Your task to perform on an android device: turn pop-ups on in chrome Image 0: 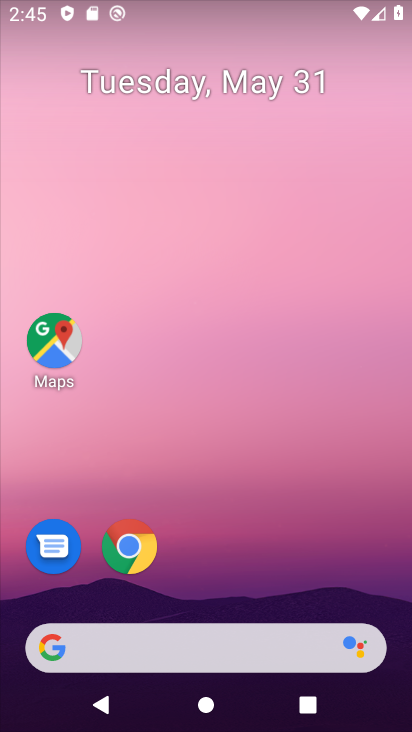
Step 0: click (136, 544)
Your task to perform on an android device: turn pop-ups on in chrome Image 1: 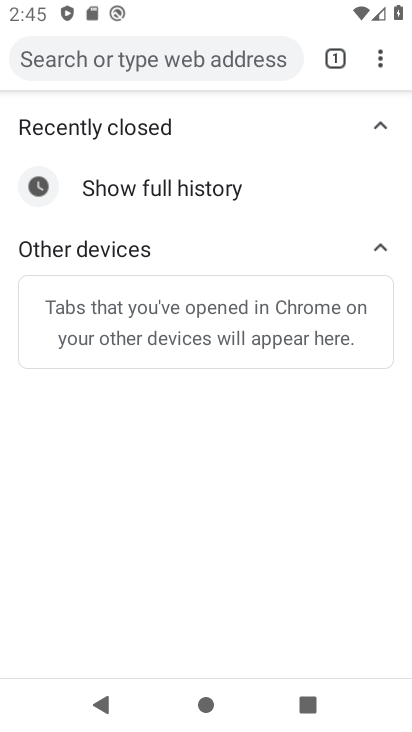
Step 1: click (381, 53)
Your task to perform on an android device: turn pop-ups on in chrome Image 2: 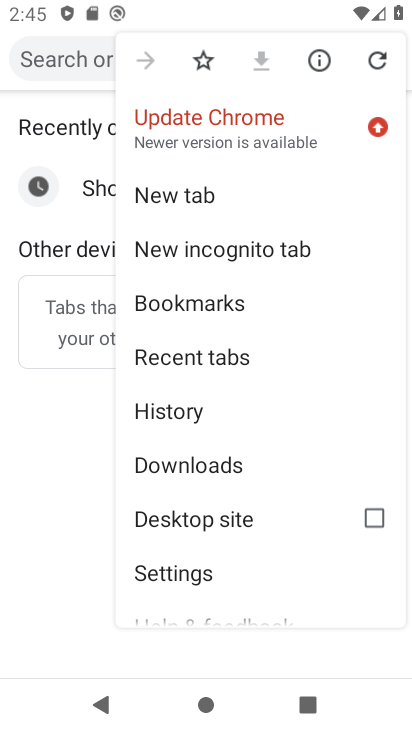
Step 2: click (220, 571)
Your task to perform on an android device: turn pop-ups on in chrome Image 3: 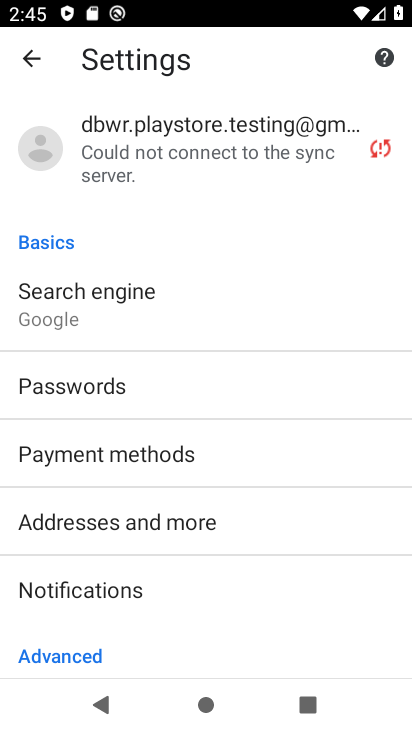
Step 3: drag from (228, 613) to (247, 327)
Your task to perform on an android device: turn pop-ups on in chrome Image 4: 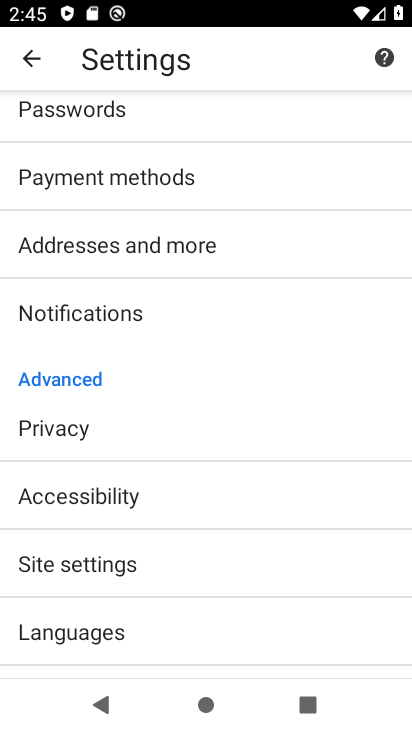
Step 4: click (204, 563)
Your task to perform on an android device: turn pop-ups on in chrome Image 5: 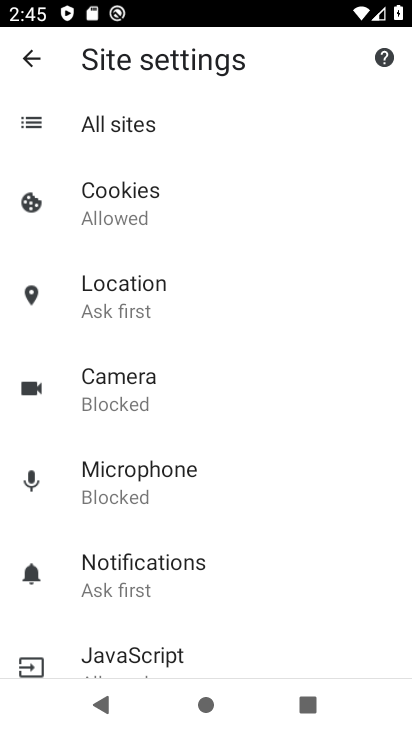
Step 5: drag from (233, 531) to (250, 295)
Your task to perform on an android device: turn pop-ups on in chrome Image 6: 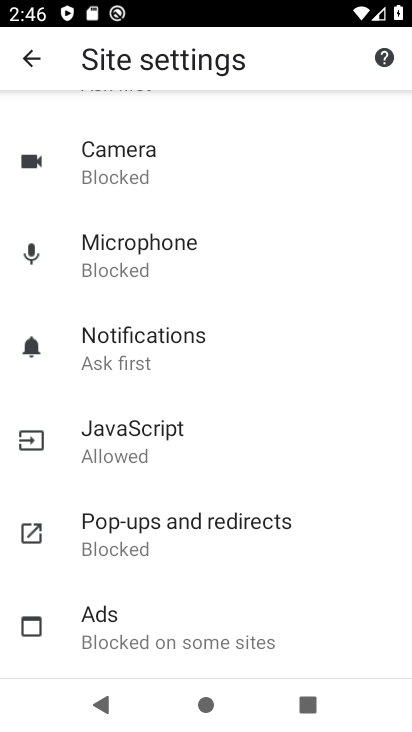
Step 6: click (230, 536)
Your task to perform on an android device: turn pop-ups on in chrome Image 7: 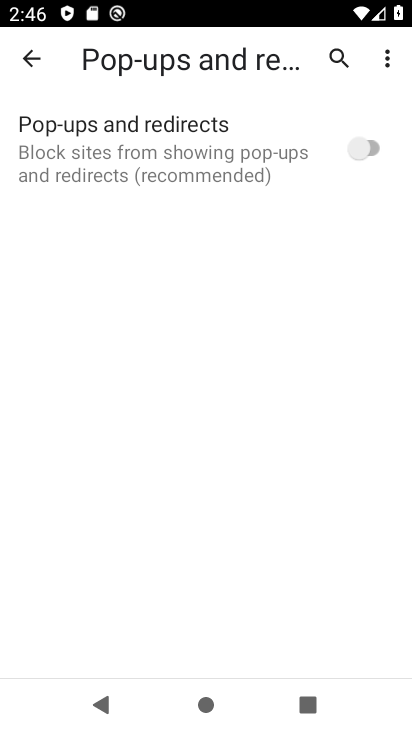
Step 7: click (354, 143)
Your task to perform on an android device: turn pop-ups on in chrome Image 8: 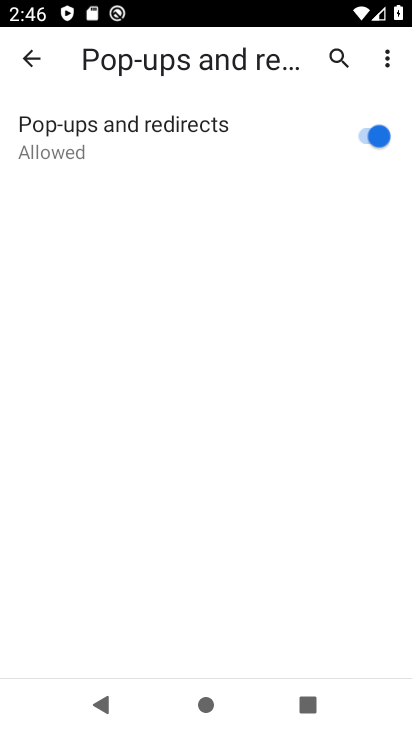
Step 8: task complete